Your task to perform on an android device: Clear all items from cart on newegg.com. Add "macbook air" to the cart on newegg.com Image 0: 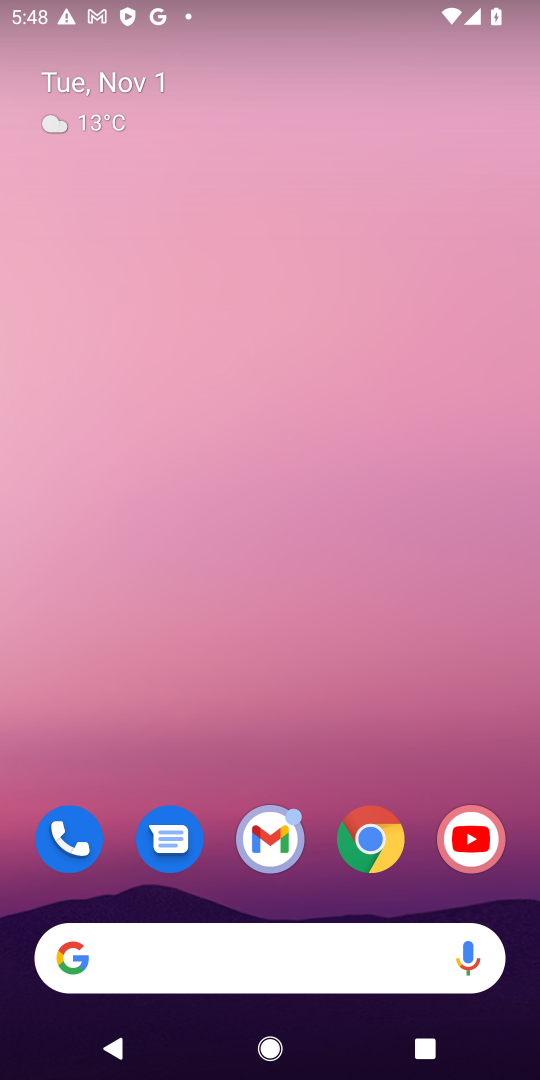
Step 0: drag from (330, 897) to (339, 114)
Your task to perform on an android device: Clear all items from cart on newegg.com. Add "macbook air" to the cart on newegg.com Image 1: 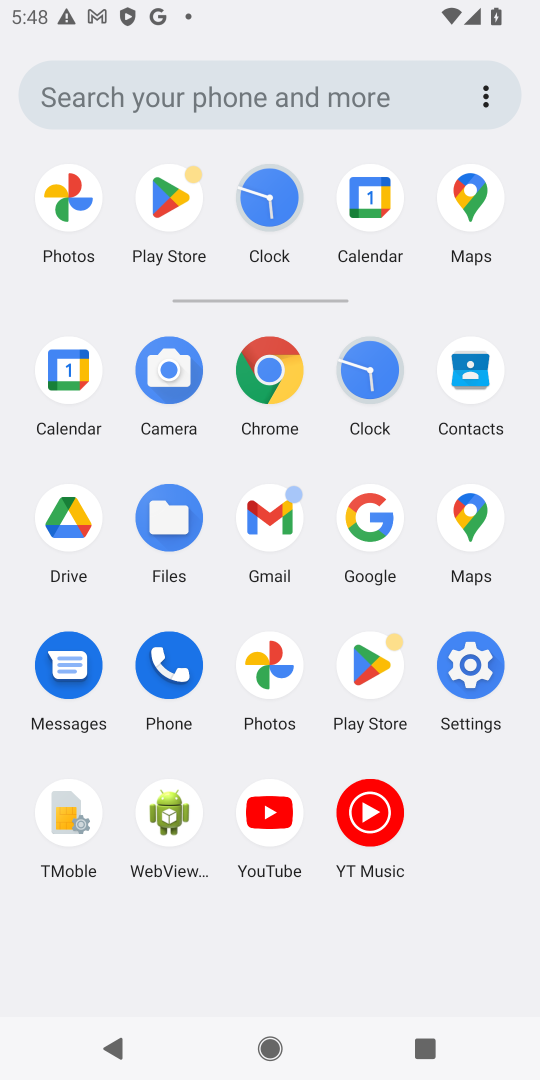
Step 1: click (266, 372)
Your task to perform on an android device: Clear all items from cart on newegg.com. Add "macbook air" to the cart on newegg.com Image 2: 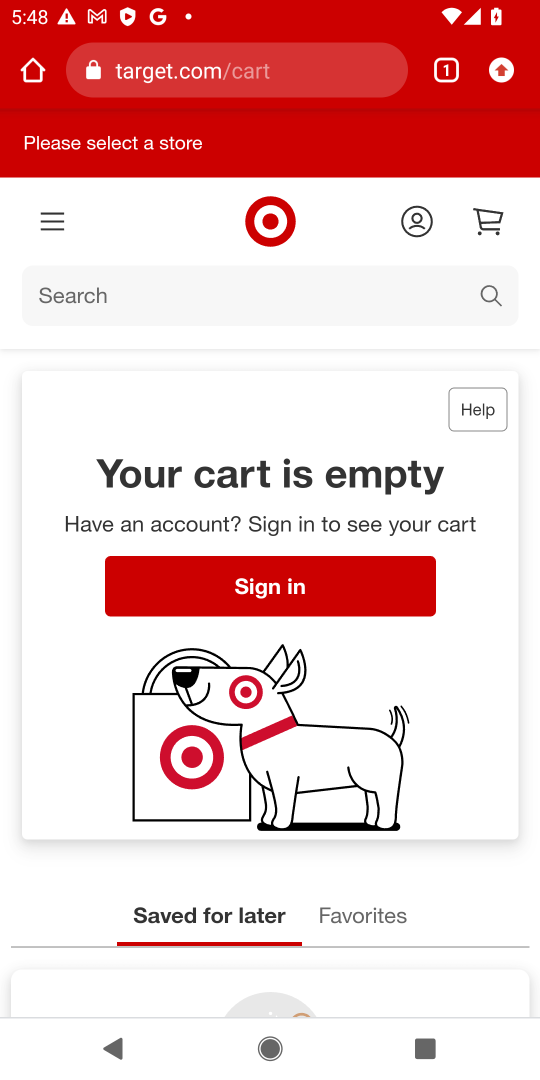
Step 2: click (262, 71)
Your task to perform on an android device: Clear all items from cart on newegg.com. Add "macbook air" to the cart on newegg.com Image 3: 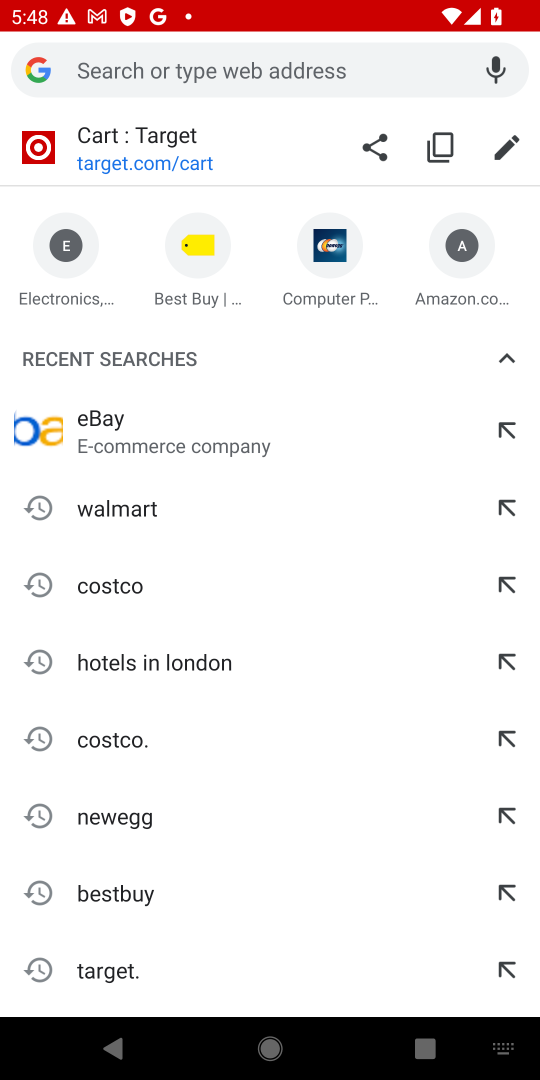
Step 3: type "newegg.com"
Your task to perform on an android device: Clear all items from cart on newegg.com. Add "macbook air" to the cart on newegg.com Image 4: 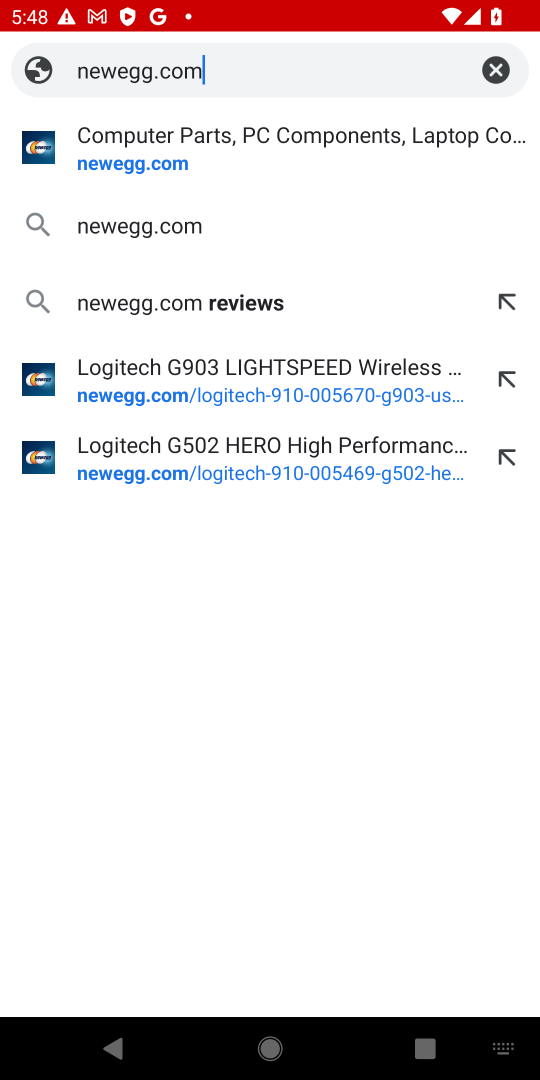
Step 4: press enter
Your task to perform on an android device: Clear all items from cart on newegg.com. Add "macbook air" to the cart on newegg.com Image 5: 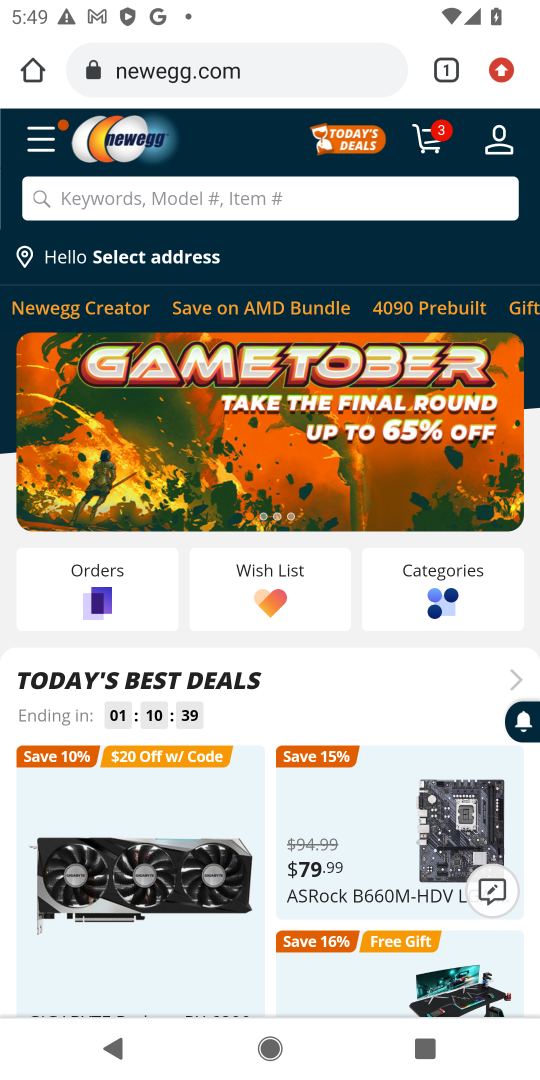
Step 5: click (441, 135)
Your task to perform on an android device: Clear all items from cart on newegg.com. Add "macbook air" to the cart on newegg.com Image 6: 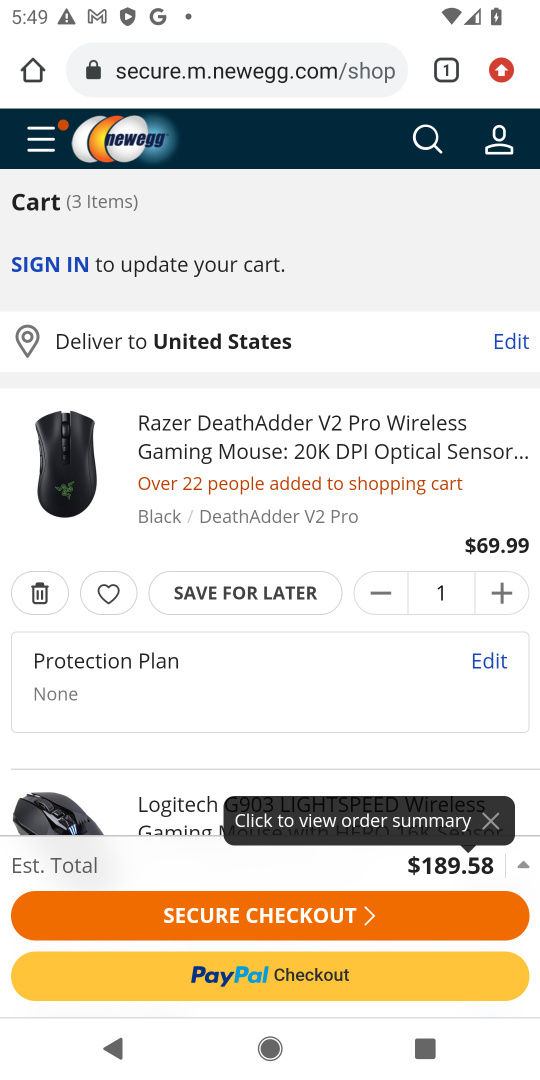
Step 6: click (50, 598)
Your task to perform on an android device: Clear all items from cart on newegg.com. Add "macbook air" to the cart on newegg.com Image 7: 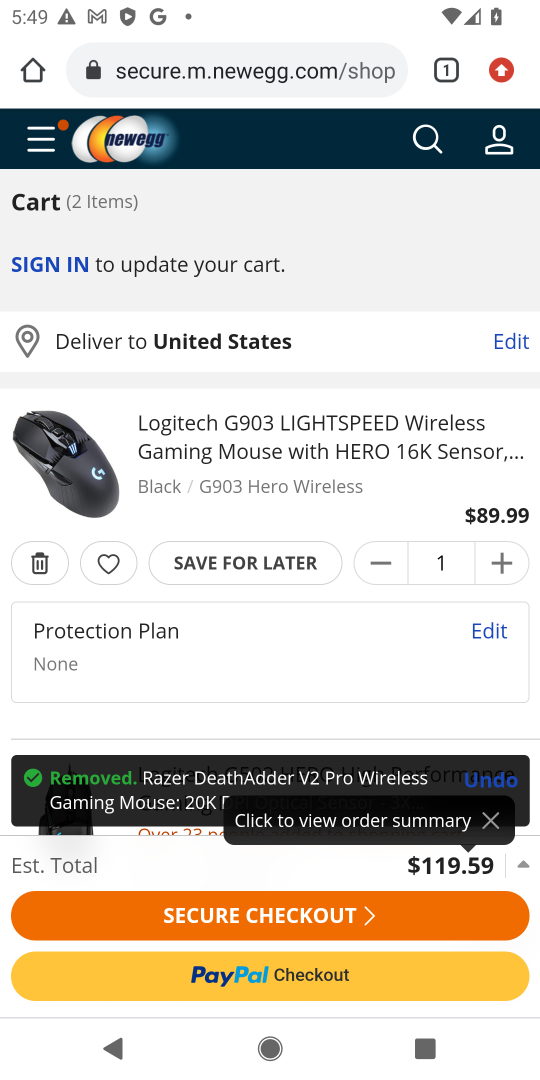
Step 7: click (40, 558)
Your task to perform on an android device: Clear all items from cart on newegg.com. Add "macbook air" to the cart on newegg.com Image 8: 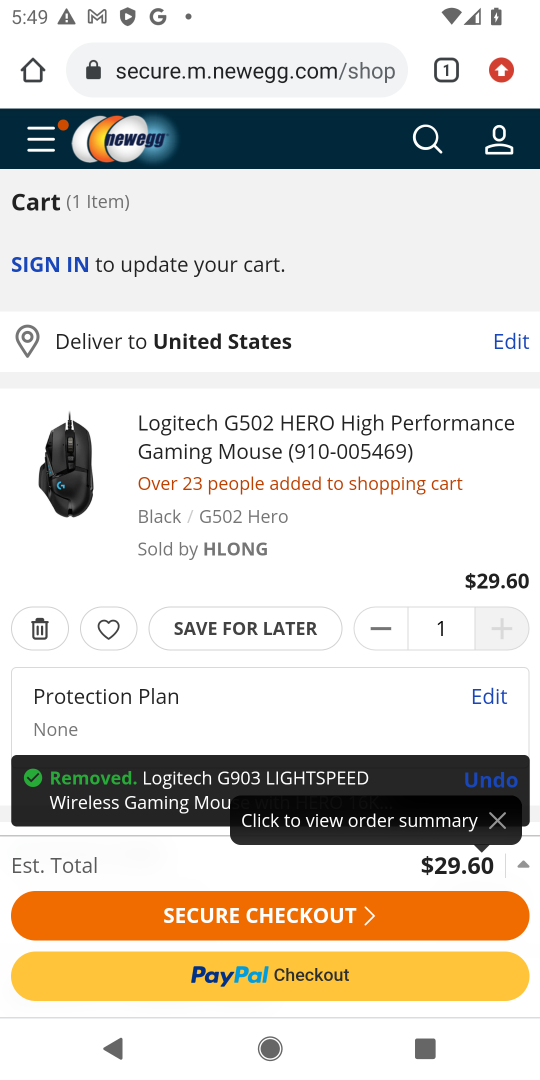
Step 8: click (29, 630)
Your task to perform on an android device: Clear all items from cart on newegg.com. Add "macbook air" to the cart on newegg.com Image 9: 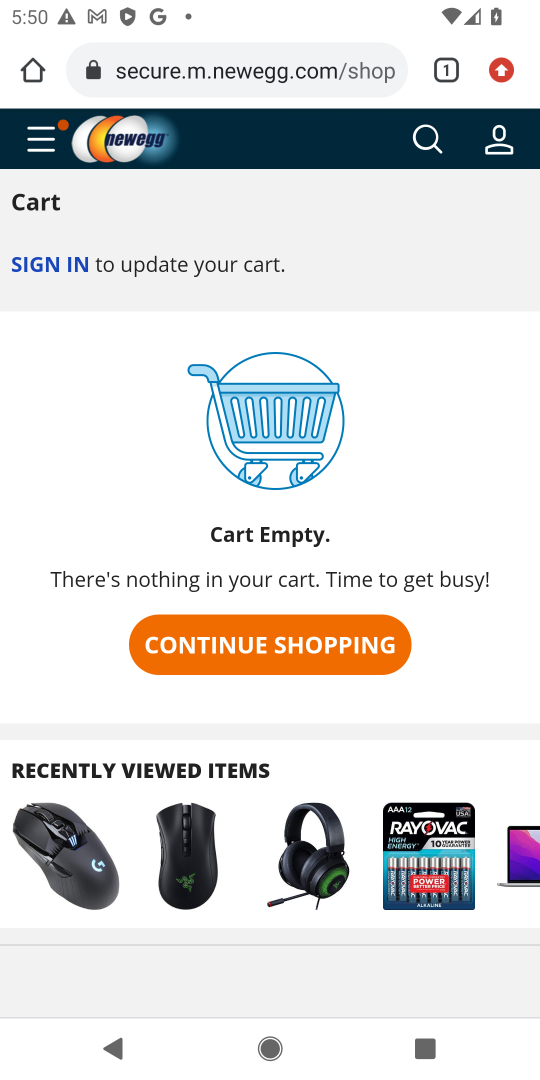
Step 9: click (417, 137)
Your task to perform on an android device: Clear all items from cart on newegg.com. Add "macbook air" to the cart on newegg.com Image 10: 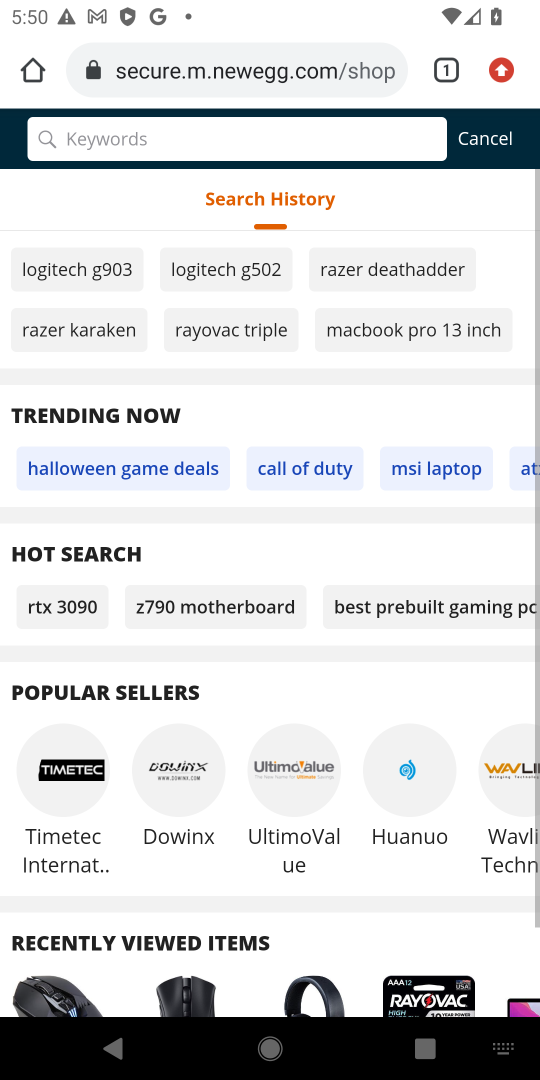
Step 10: click (429, 146)
Your task to perform on an android device: Clear all items from cart on newegg.com. Add "macbook air" to the cart on newegg.com Image 11: 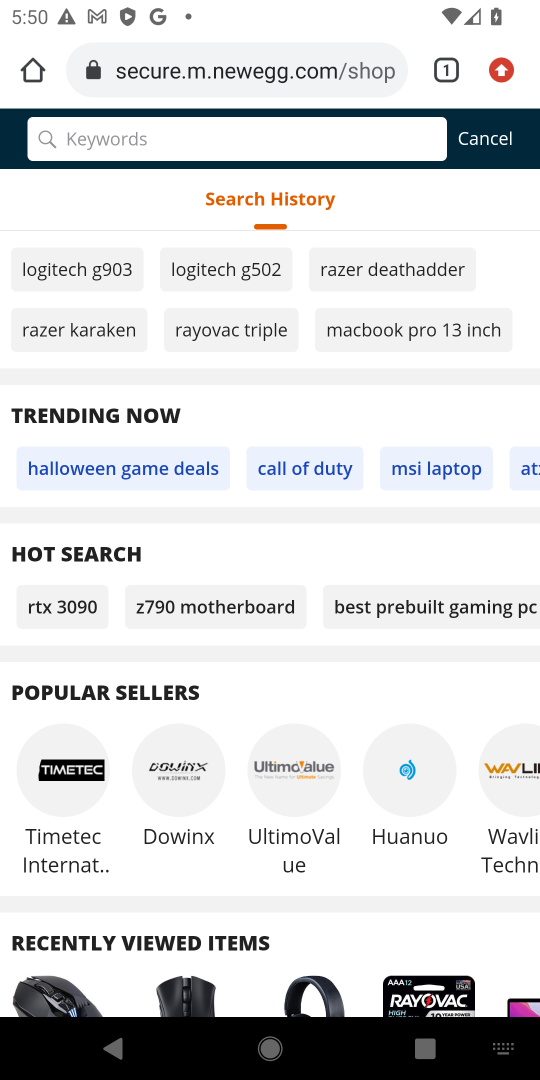
Step 11: type "macbook air"
Your task to perform on an android device: Clear all items from cart on newegg.com. Add "macbook air" to the cart on newegg.com Image 12: 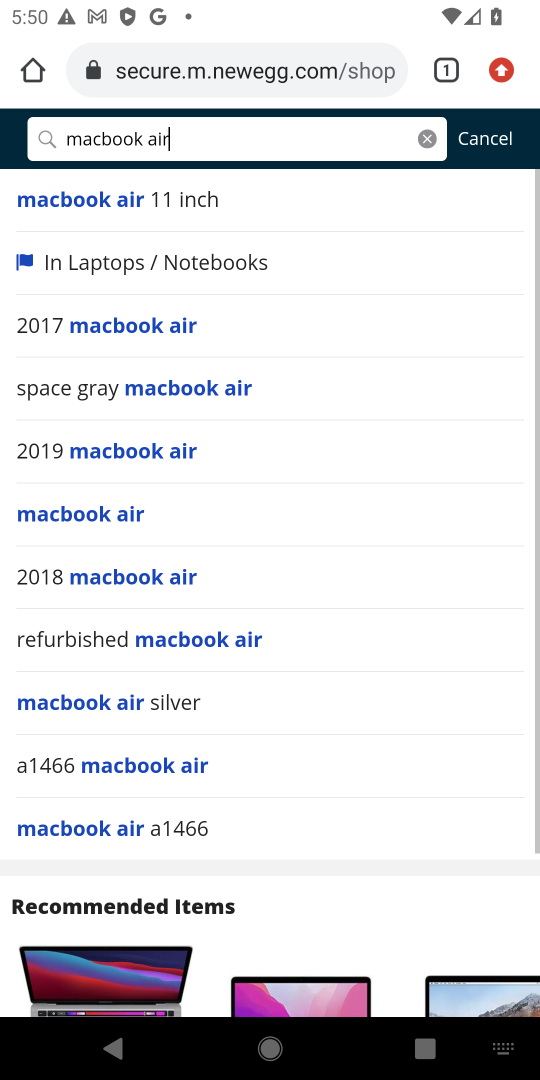
Step 12: press enter
Your task to perform on an android device: Clear all items from cart on newegg.com. Add "macbook air" to the cart on newegg.com Image 13: 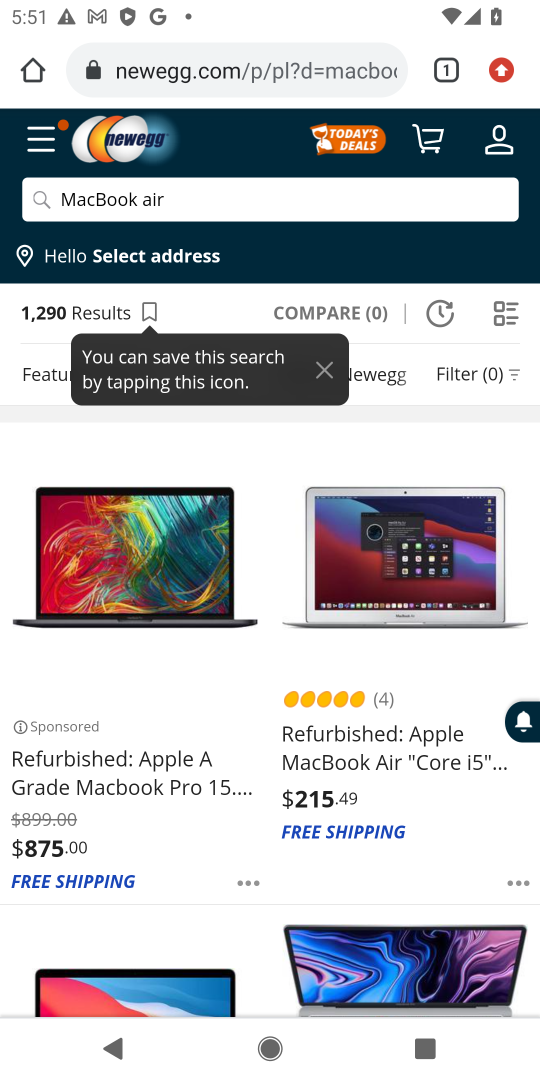
Step 13: drag from (305, 807) to (339, 374)
Your task to perform on an android device: Clear all items from cart on newegg.com. Add "macbook air" to the cart on newegg.com Image 14: 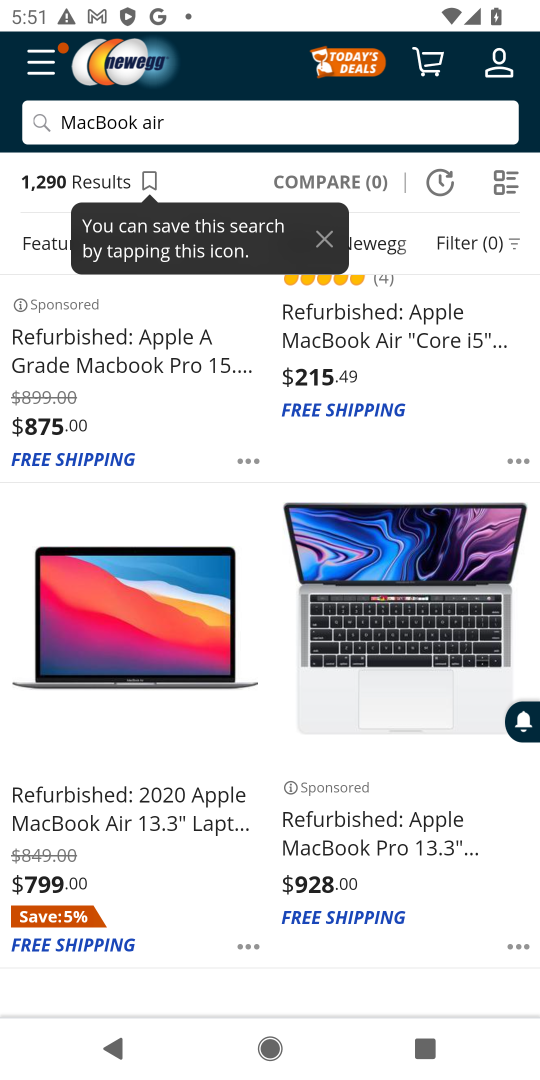
Step 14: drag from (264, 780) to (300, 384)
Your task to perform on an android device: Clear all items from cart on newegg.com. Add "macbook air" to the cart on newegg.com Image 15: 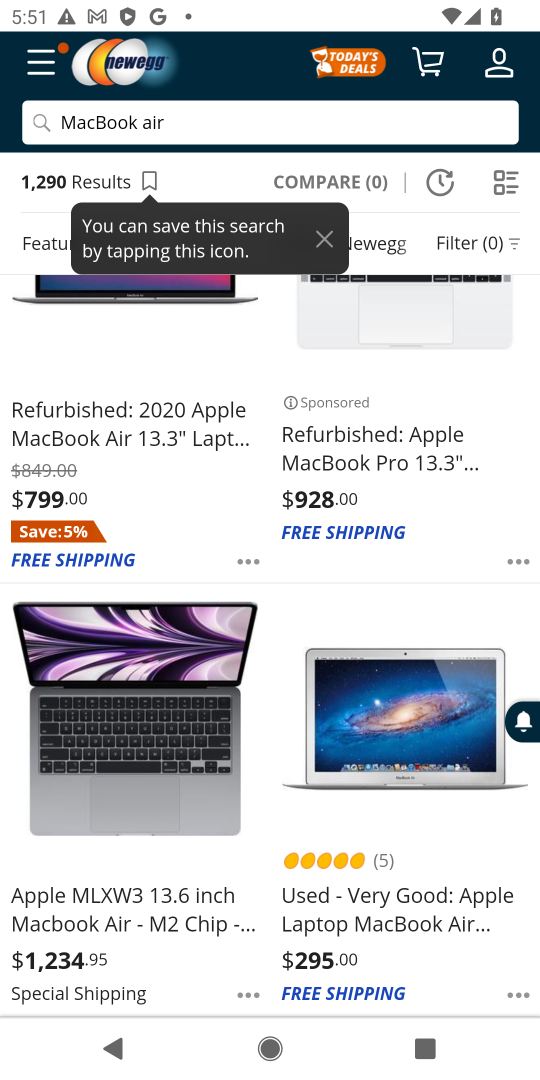
Step 15: drag from (279, 863) to (336, 261)
Your task to perform on an android device: Clear all items from cart on newegg.com. Add "macbook air" to the cart on newegg.com Image 16: 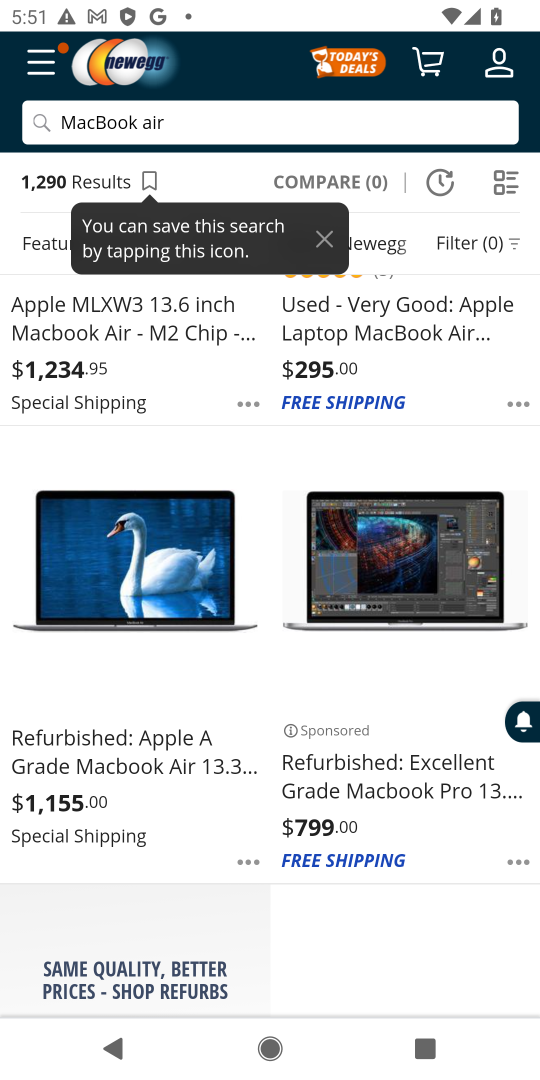
Step 16: click (162, 588)
Your task to perform on an android device: Clear all items from cart on newegg.com. Add "macbook air" to the cart on newegg.com Image 17: 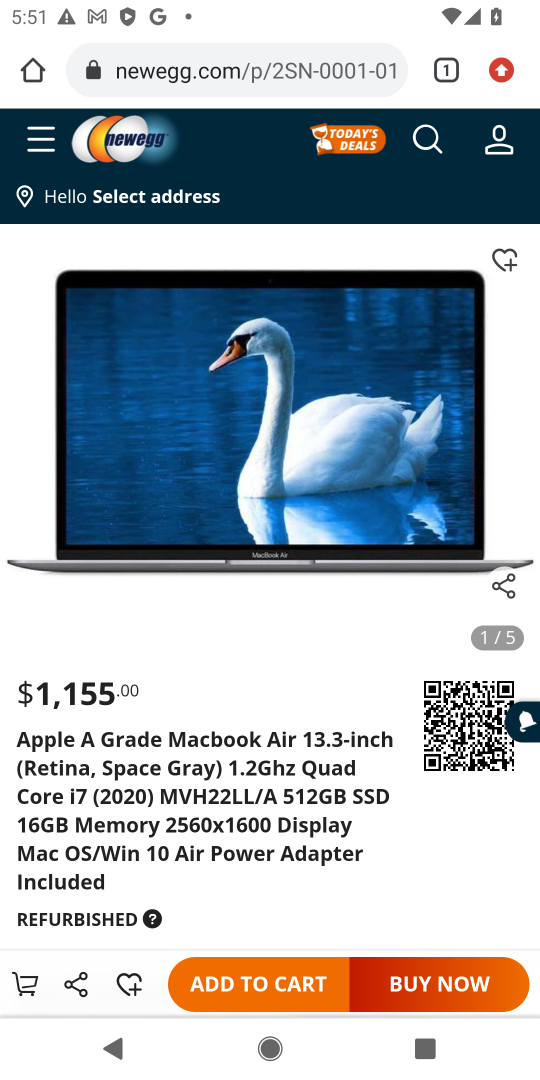
Step 17: drag from (190, 842) to (232, 619)
Your task to perform on an android device: Clear all items from cart on newegg.com. Add "macbook air" to the cart on newegg.com Image 18: 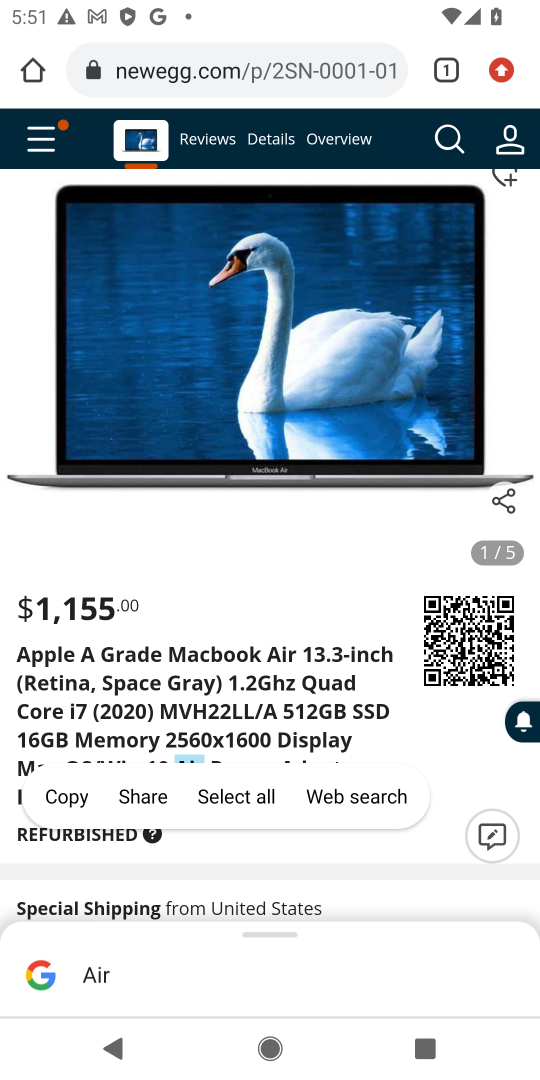
Step 18: click (412, 725)
Your task to perform on an android device: Clear all items from cart on newegg.com. Add "macbook air" to the cart on newegg.com Image 19: 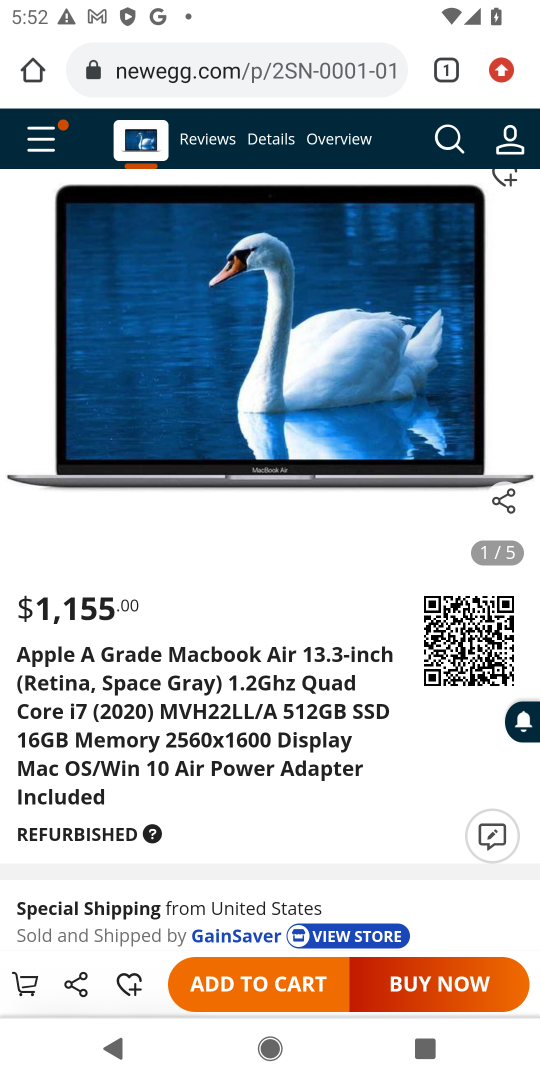
Step 19: click (256, 964)
Your task to perform on an android device: Clear all items from cart on newegg.com. Add "macbook air" to the cart on newegg.com Image 20: 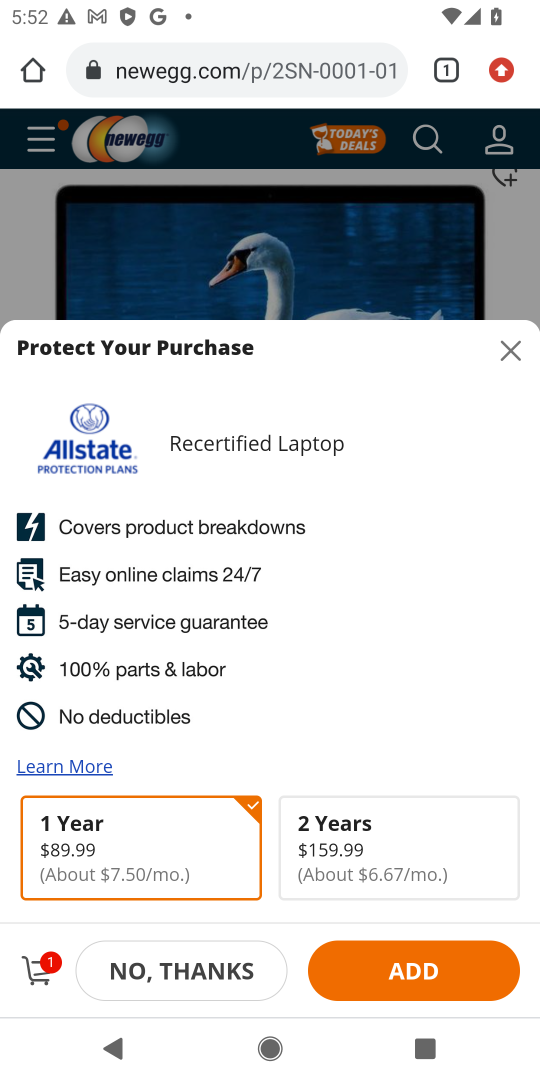
Step 20: task complete